Your task to perform on an android device: turn off improve location accuracy Image 0: 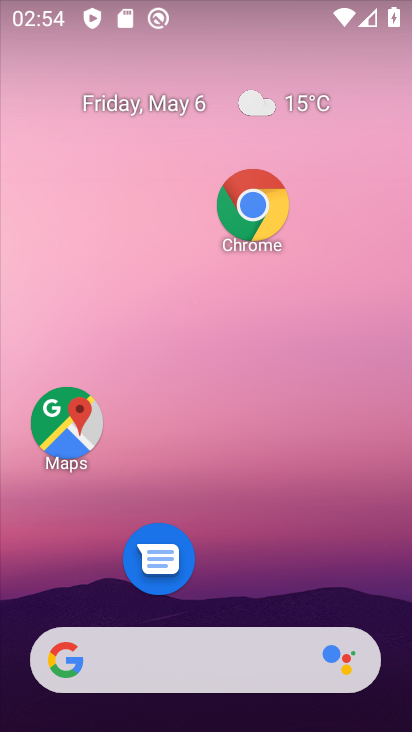
Step 0: drag from (314, 513) to (353, 211)
Your task to perform on an android device: turn off improve location accuracy Image 1: 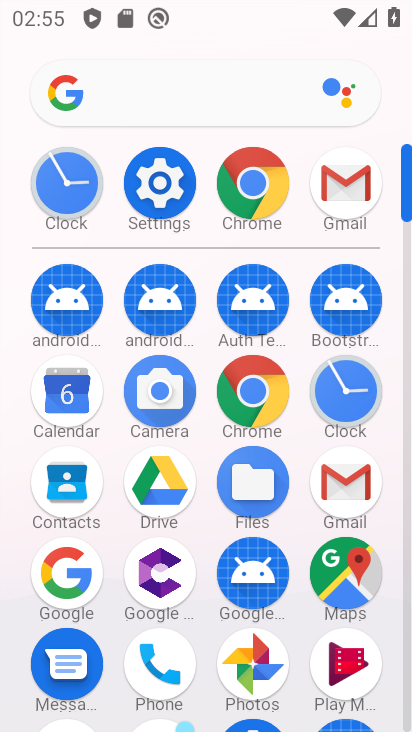
Step 1: click (161, 204)
Your task to perform on an android device: turn off improve location accuracy Image 2: 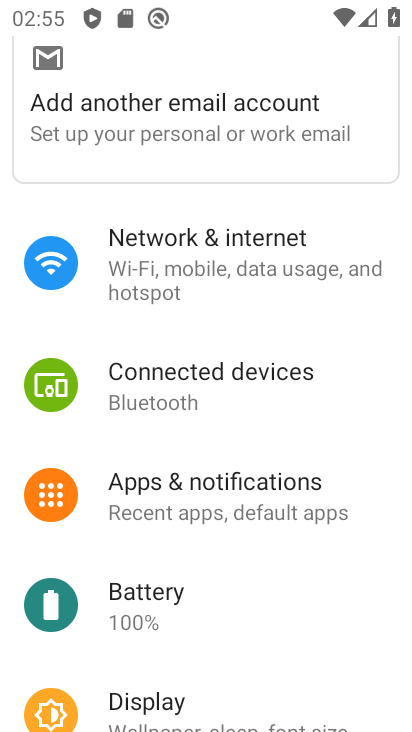
Step 2: drag from (188, 629) to (191, 369)
Your task to perform on an android device: turn off improve location accuracy Image 3: 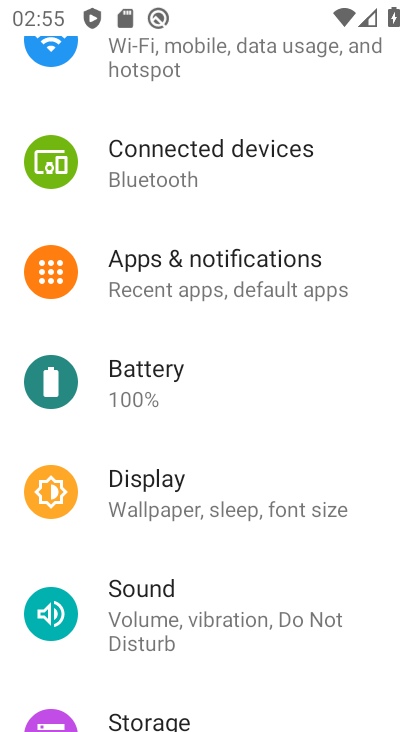
Step 3: drag from (197, 560) to (206, 419)
Your task to perform on an android device: turn off improve location accuracy Image 4: 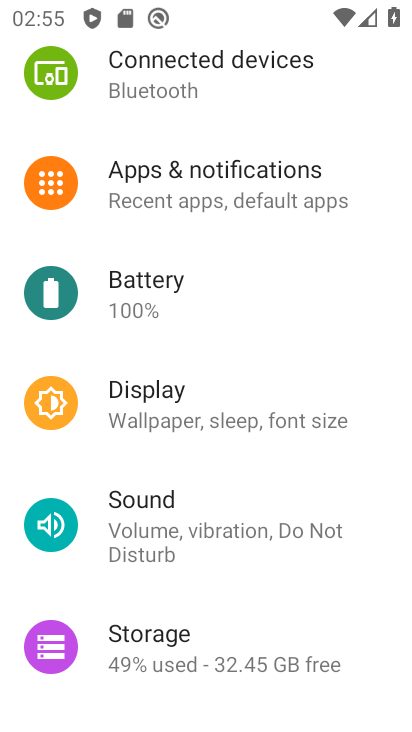
Step 4: drag from (226, 613) to (232, 302)
Your task to perform on an android device: turn off improve location accuracy Image 5: 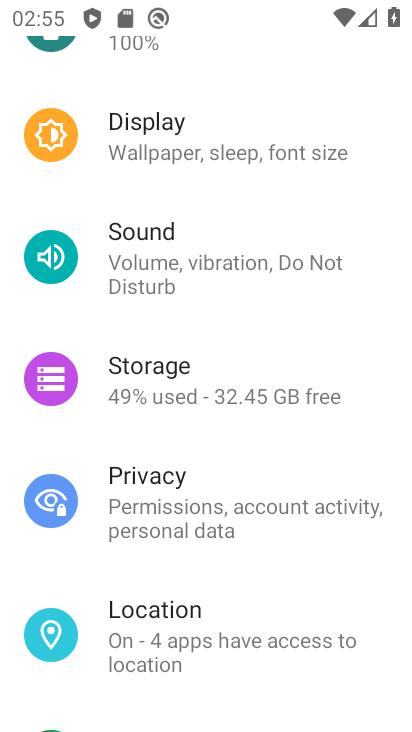
Step 5: click (206, 646)
Your task to perform on an android device: turn off improve location accuracy Image 6: 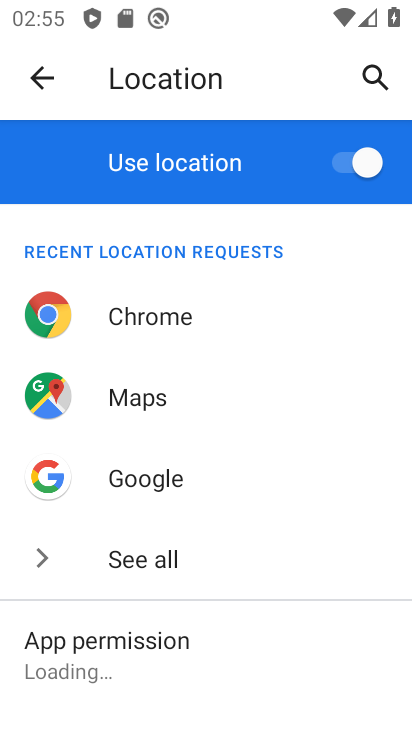
Step 6: drag from (225, 621) to (238, 492)
Your task to perform on an android device: turn off improve location accuracy Image 7: 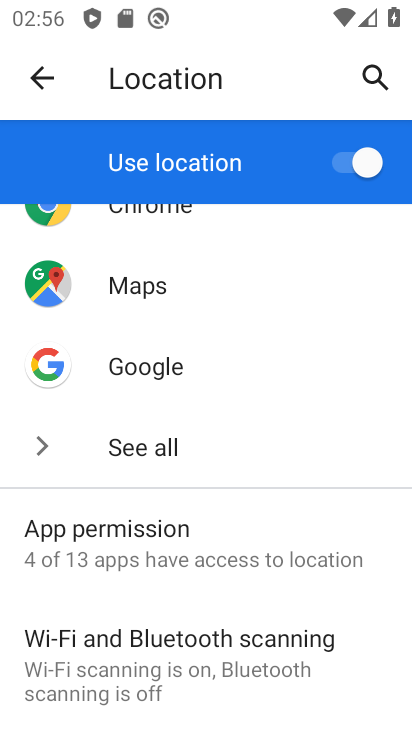
Step 7: drag from (212, 612) to (225, 446)
Your task to perform on an android device: turn off improve location accuracy Image 8: 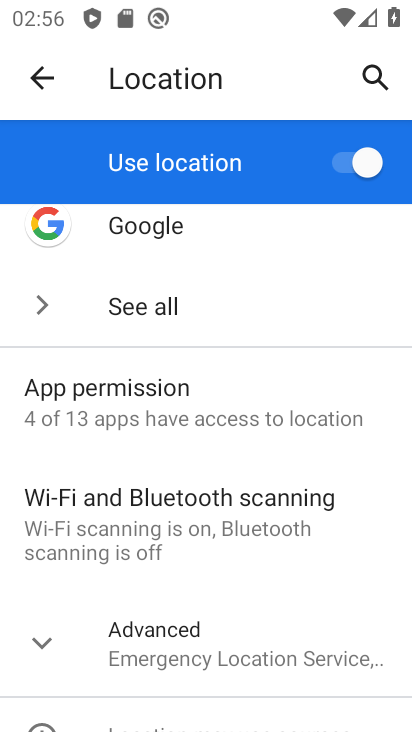
Step 8: click (141, 632)
Your task to perform on an android device: turn off improve location accuracy Image 9: 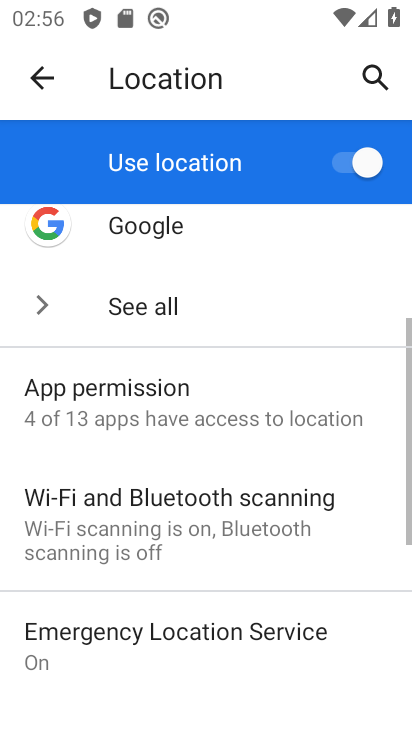
Step 9: drag from (186, 608) to (235, 451)
Your task to perform on an android device: turn off improve location accuracy Image 10: 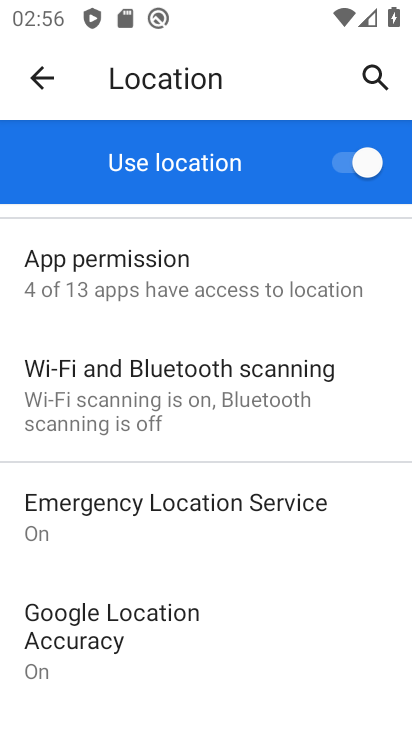
Step 10: click (179, 612)
Your task to perform on an android device: turn off improve location accuracy Image 11: 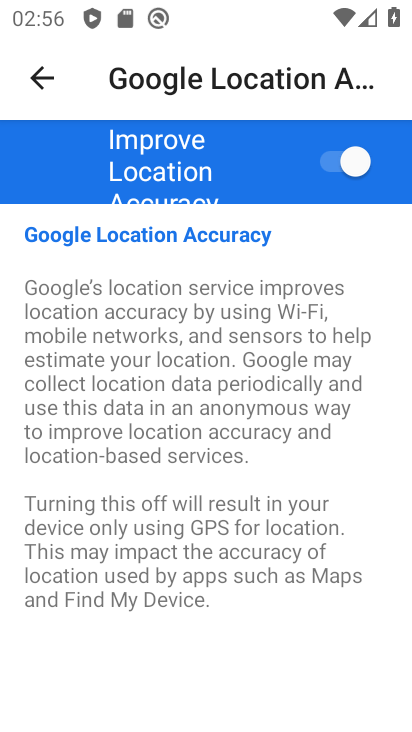
Step 11: click (377, 155)
Your task to perform on an android device: turn off improve location accuracy Image 12: 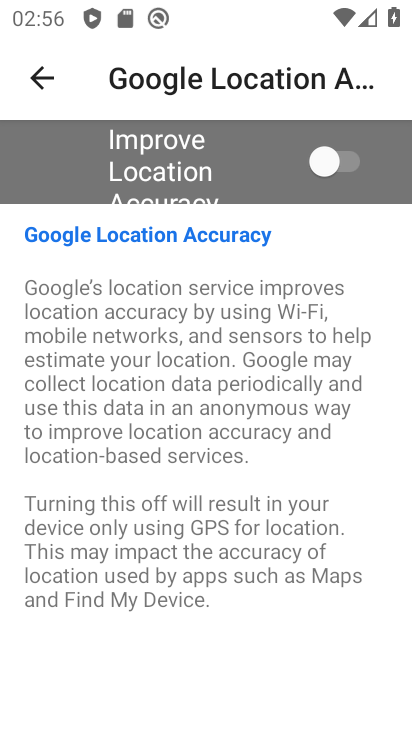
Step 12: task complete